Your task to perform on an android device: add a label to a message in the gmail app Image 0: 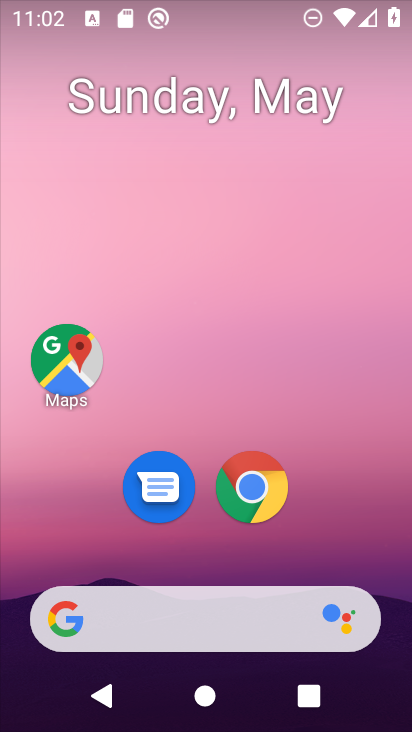
Step 0: drag from (278, 567) to (279, 232)
Your task to perform on an android device: add a label to a message in the gmail app Image 1: 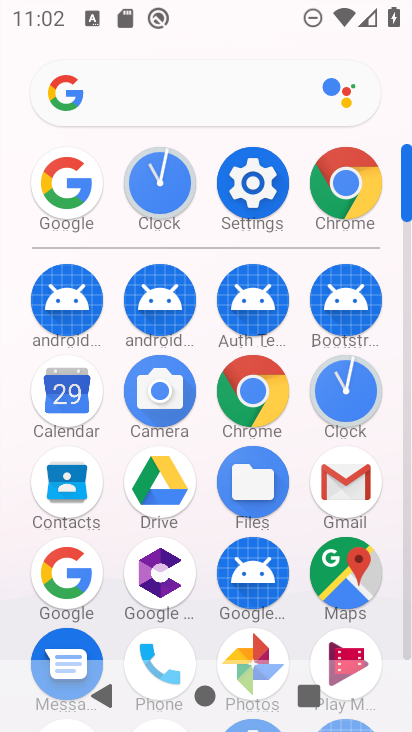
Step 1: click (342, 486)
Your task to perform on an android device: add a label to a message in the gmail app Image 2: 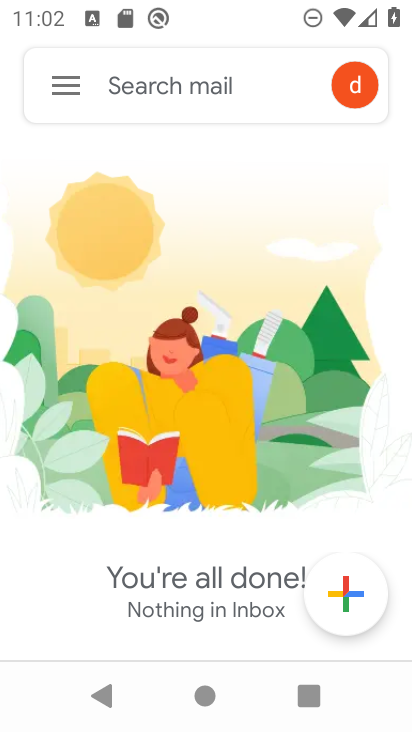
Step 2: click (70, 82)
Your task to perform on an android device: add a label to a message in the gmail app Image 3: 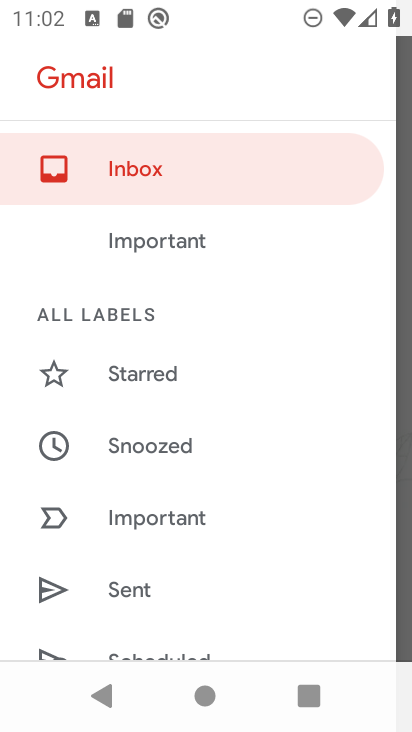
Step 3: drag from (130, 519) to (180, 269)
Your task to perform on an android device: add a label to a message in the gmail app Image 4: 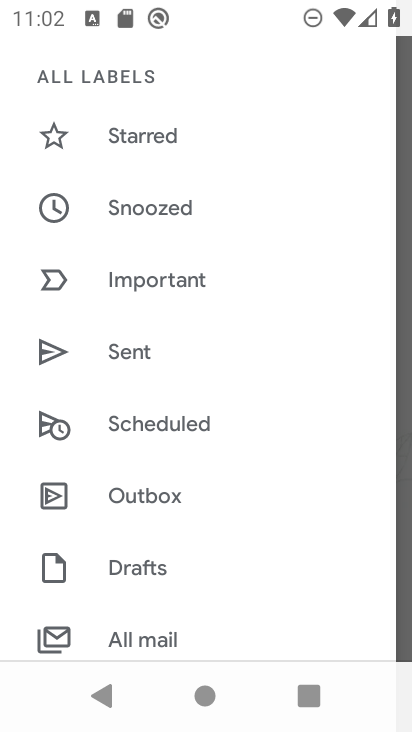
Step 4: click (130, 630)
Your task to perform on an android device: add a label to a message in the gmail app Image 5: 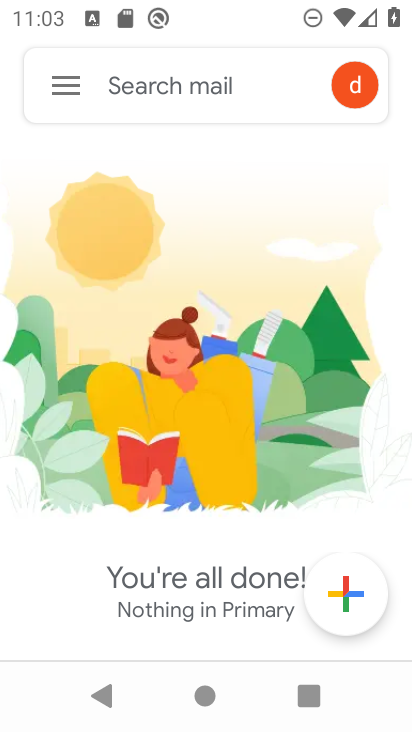
Step 5: task complete